Your task to perform on an android device: all mails in gmail Image 0: 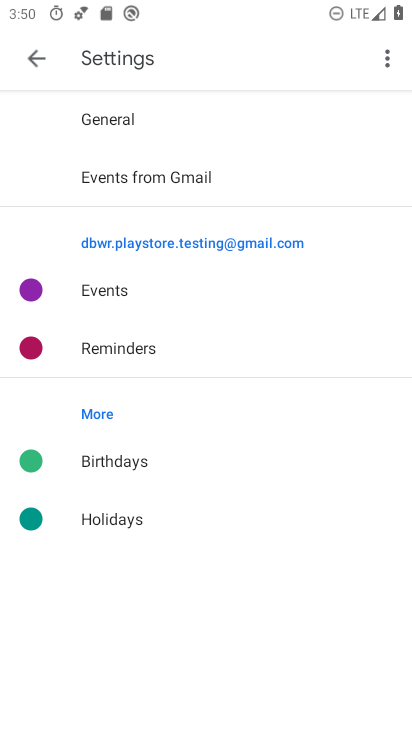
Step 0: press home button
Your task to perform on an android device: all mails in gmail Image 1: 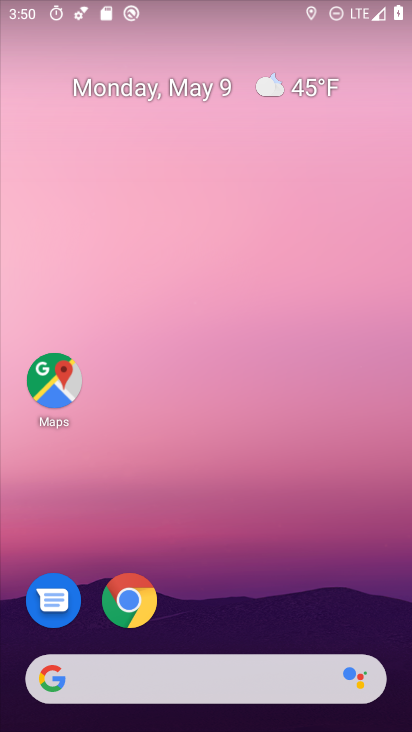
Step 1: drag from (183, 588) to (250, 102)
Your task to perform on an android device: all mails in gmail Image 2: 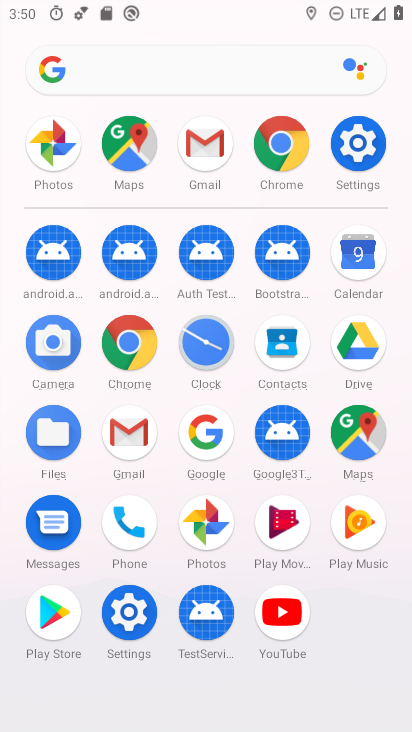
Step 2: click (137, 428)
Your task to perform on an android device: all mails in gmail Image 3: 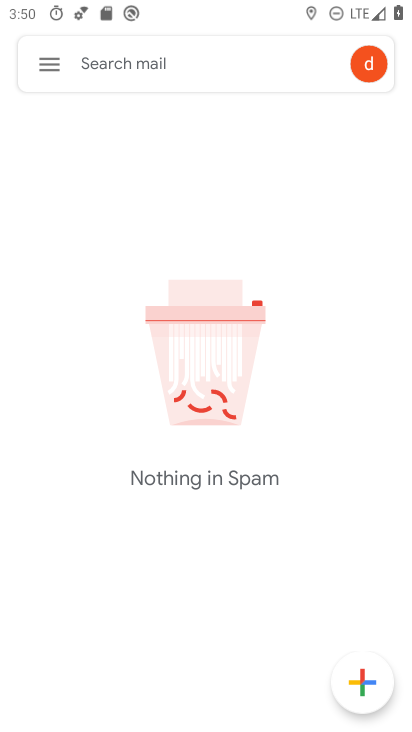
Step 3: click (56, 68)
Your task to perform on an android device: all mails in gmail Image 4: 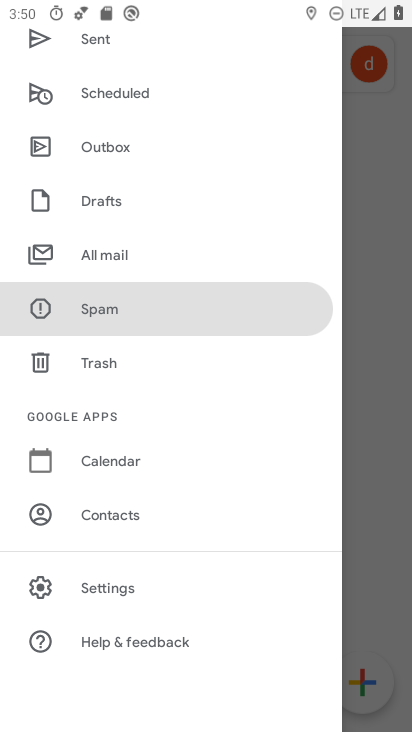
Step 4: click (95, 254)
Your task to perform on an android device: all mails in gmail Image 5: 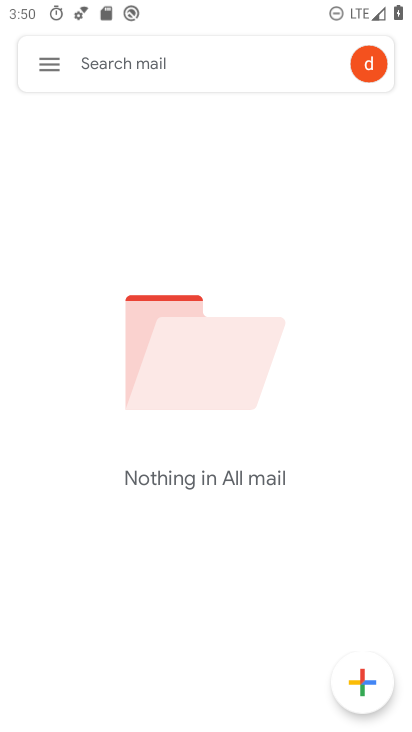
Step 5: task complete